Your task to perform on an android device: Show the shopping cart on bestbuy. Add logitech g pro to the cart on bestbuy Image 0: 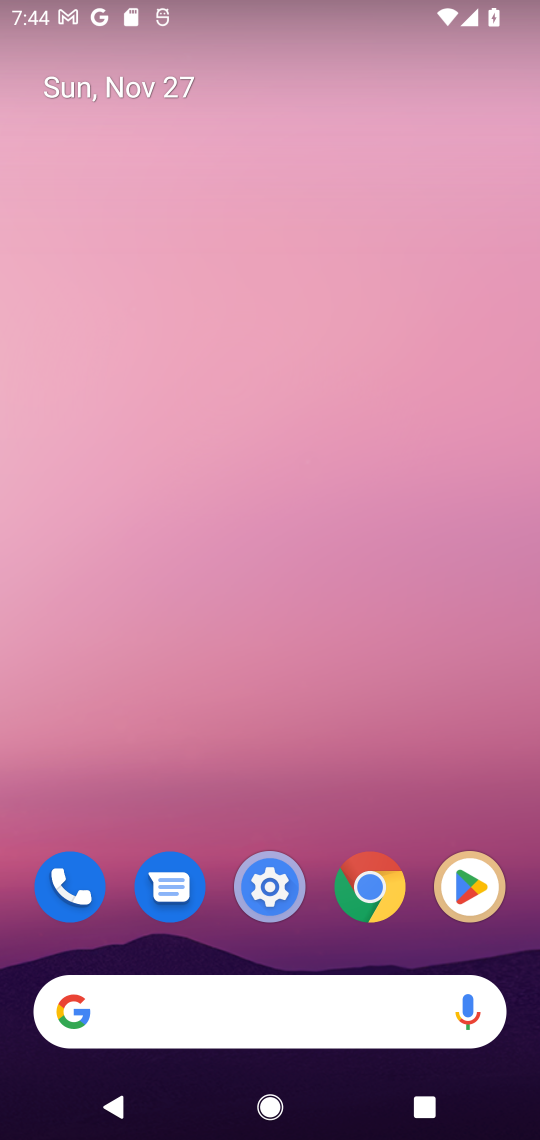
Step 0: press home button
Your task to perform on an android device: Show the shopping cart on bestbuy. Add logitech g pro to the cart on bestbuy Image 1: 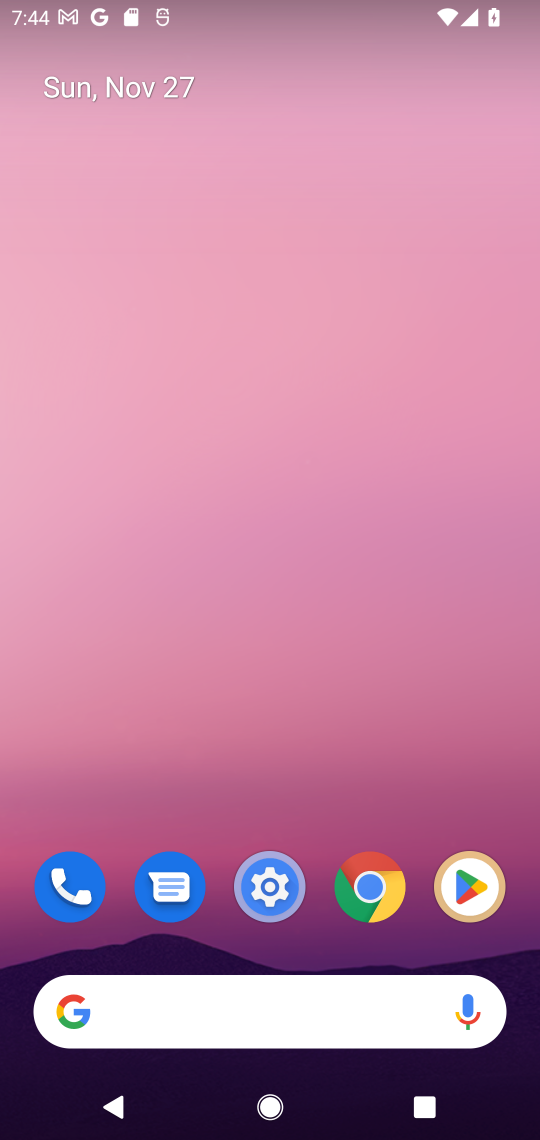
Step 1: click (334, 985)
Your task to perform on an android device: Show the shopping cart on bestbuy. Add logitech g pro to the cart on bestbuy Image 2: 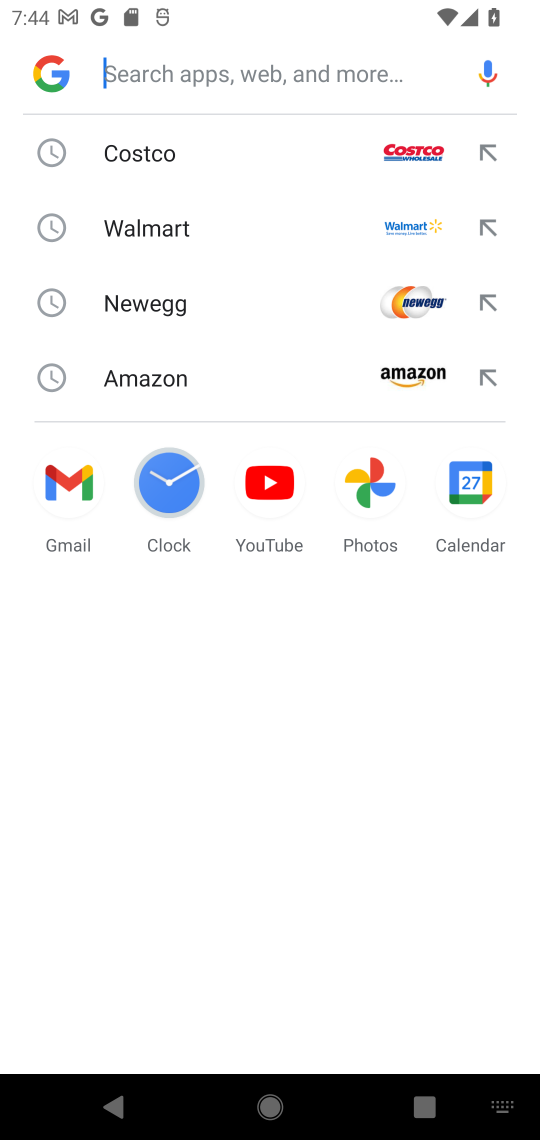
Step 2: type "bestbuy"
Your task to perform on an android device: Show the shopping cart on bestbuy. Add logitech g pro to the cart on bestbuy Image 3: 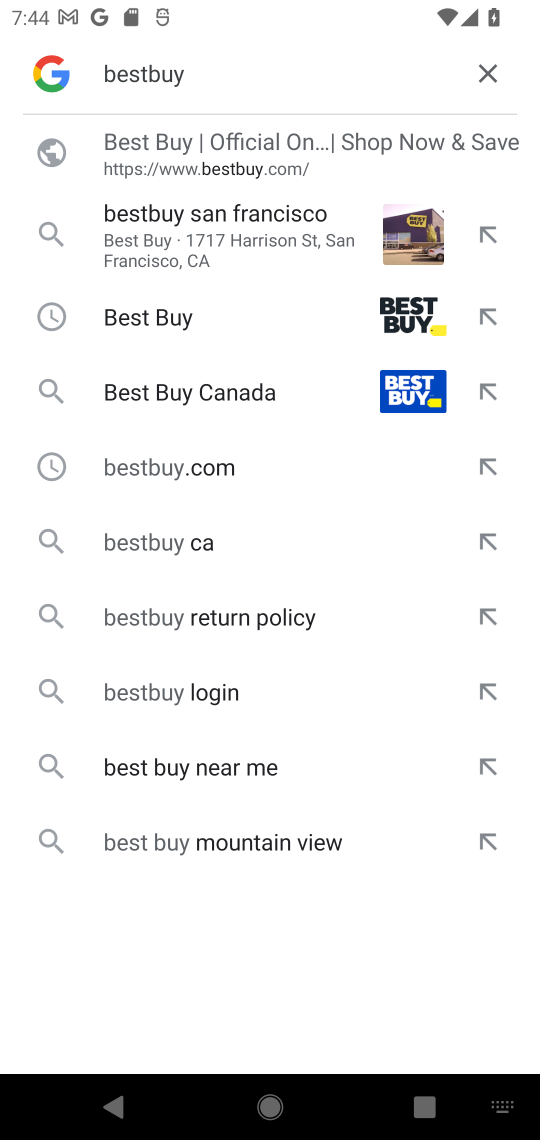
Step 3: click (201, 155)
Your task to perform on an android device: Show the shopping cart on bestbuy. Add logitech g pro to the cart on bestbuy Image 4: 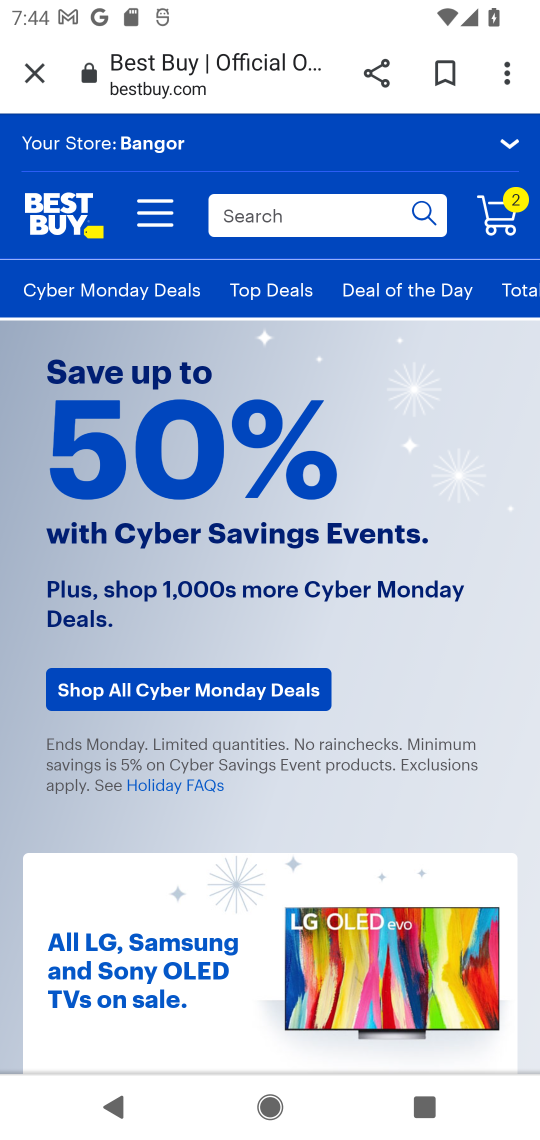
Step 4: click (279, 227)
Your task to perform on an android device: Show the shopping cart on bestbuy. Add logitech g pro to the cart on bestbuy Image 5: 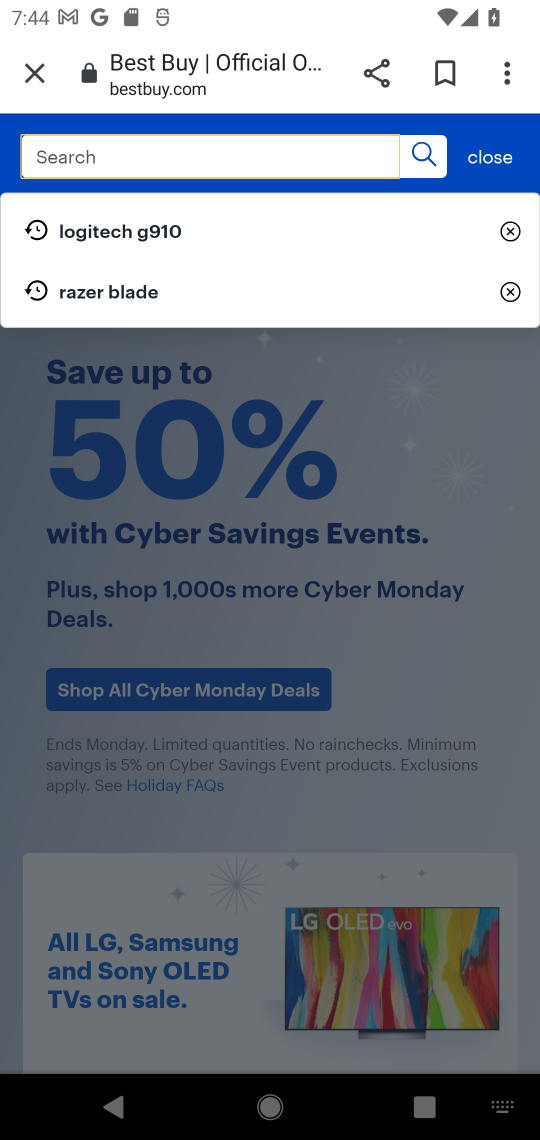
Step 5: type "logitech gpro"
Your task to perform on an android device: Show the shopping cart on bestbuy. Add logitech g pro to the cart on bestbuy Image 6: 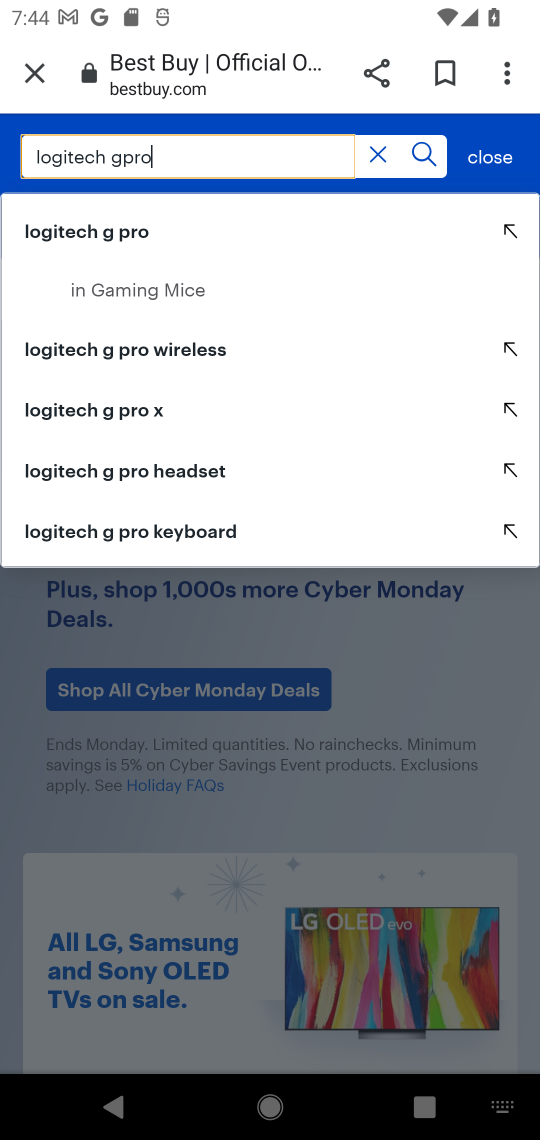
Step 6: click (257, 235)
Your task to perform on an android device: Show the shopping cart on bestbuy. Add logitech g pro to the cart on bestbuy Image 7: 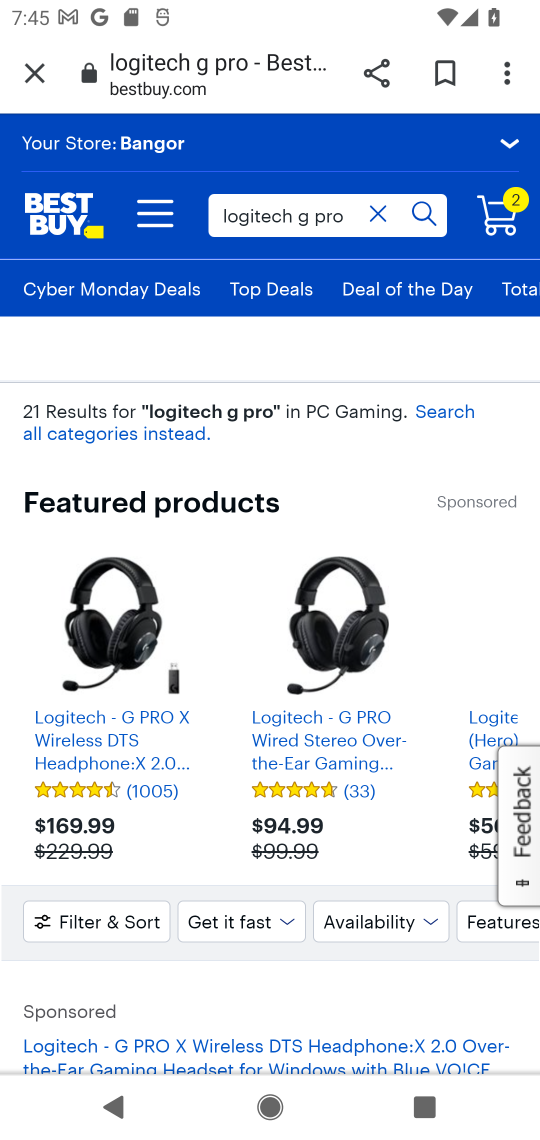
Step 7: click (150, 798)
Your task to perform on an android device: Show the shopping cart on bestbuy. Add logitech g pro to the cart on bestbuy Image 8: 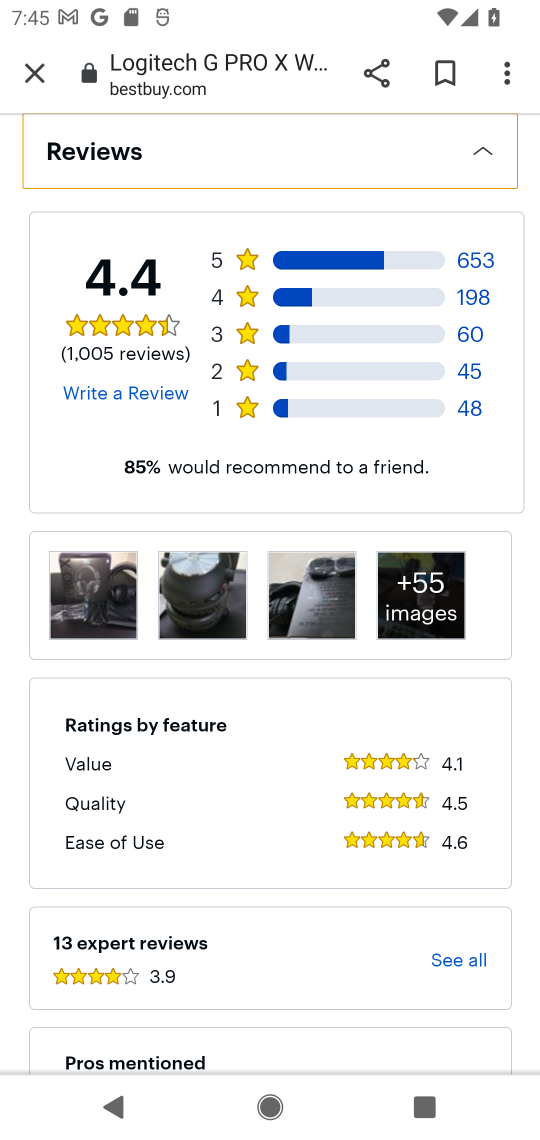
Step 8: drag from (407, 891) to (378, 399)
Your task to perform on an android device: Show the shopping cart on bestbuy. Add logitech g pro to the cart on bestbuy Image 9: 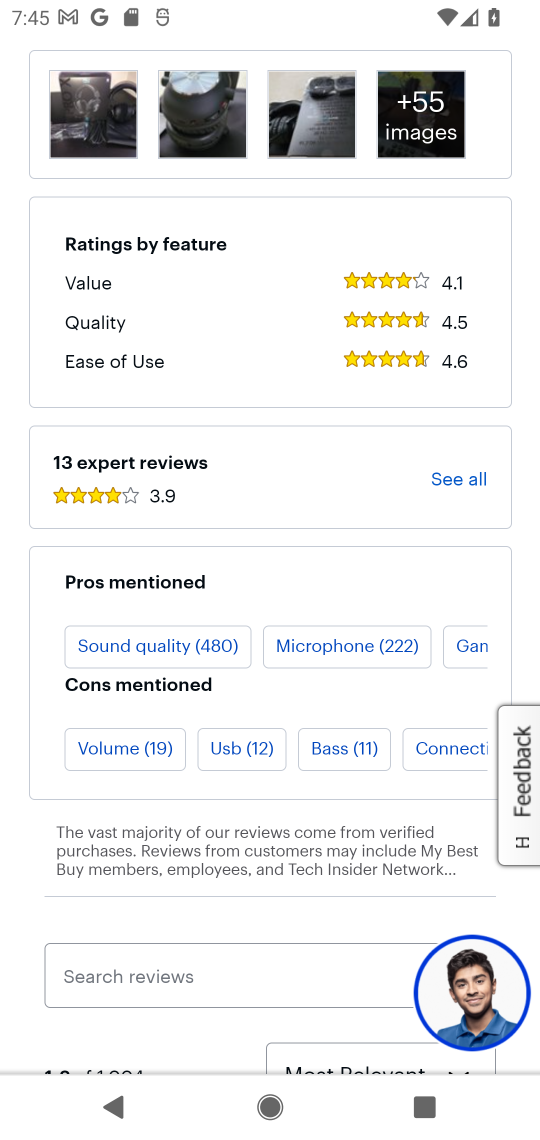
Step 9: drag from (350, 801) to (376, 437)
Your task to perform on an android device: Show the shopping cart on bestbuy. Add logitech g pro to the cart on bestbuy Image 10: 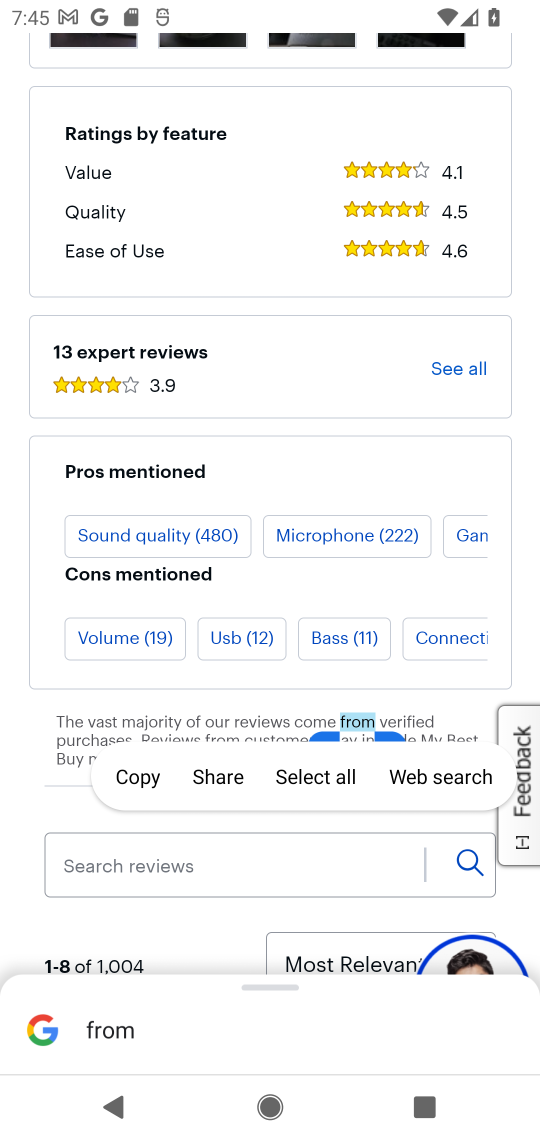
Step 10: click (335, 580)
Your task to perform on an android device: Show the shopping cart on bestbuy. Add logitech g pro to the cart on bestbuy Image 11: 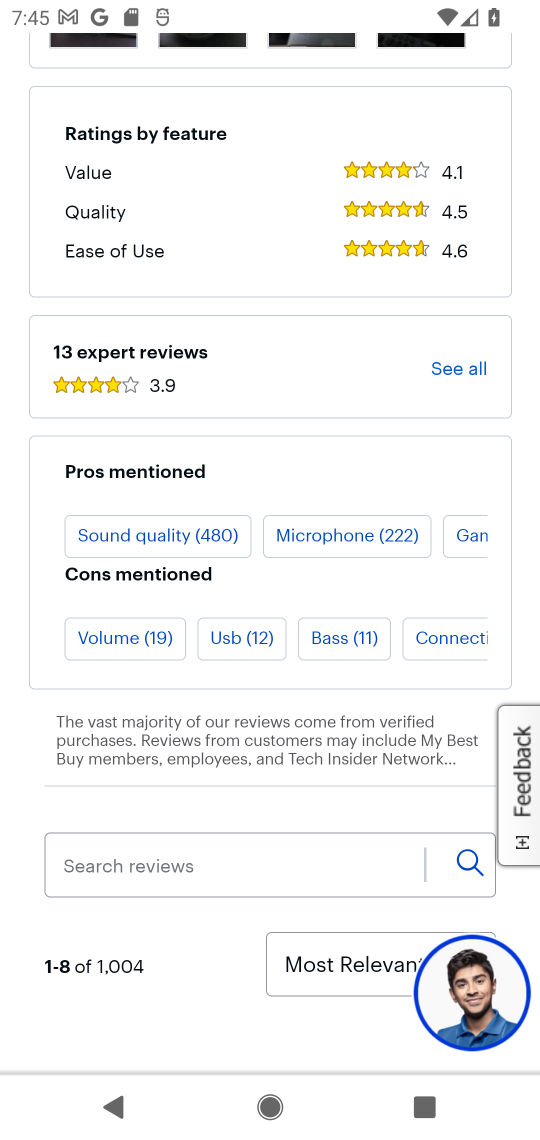
Step 11: press home button
Your task to perform on an android device: Show the shopping cart on bestbuy. Add logitech g pro to the cart on bestbuy Image 12: 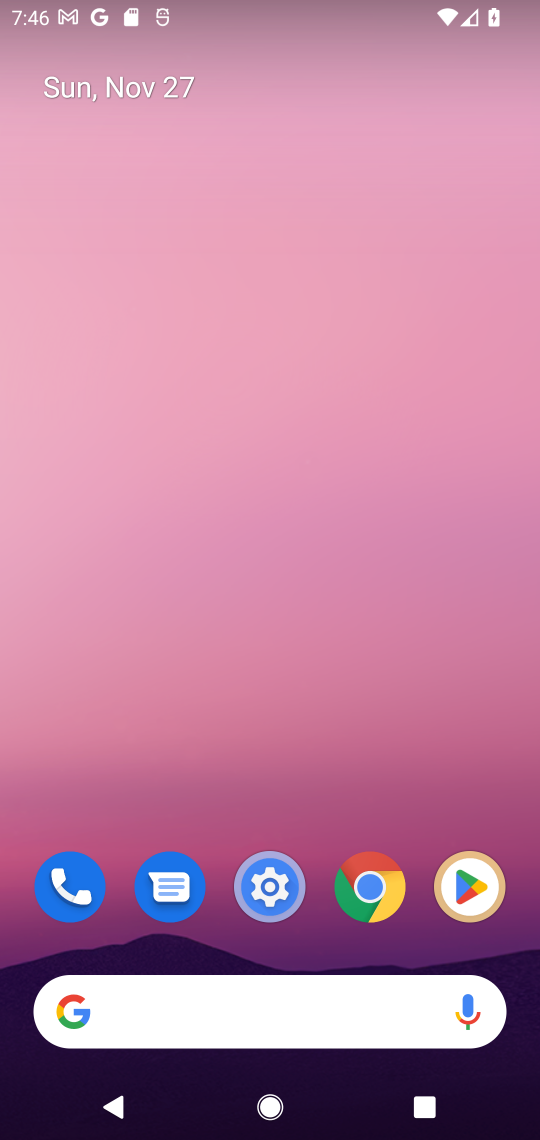
Step 12: click (317, 978)
Your task to perform on an android device: Show the shopping cart on bestbuy. Add logitech g pro to the cart on bestbuy Image 13: 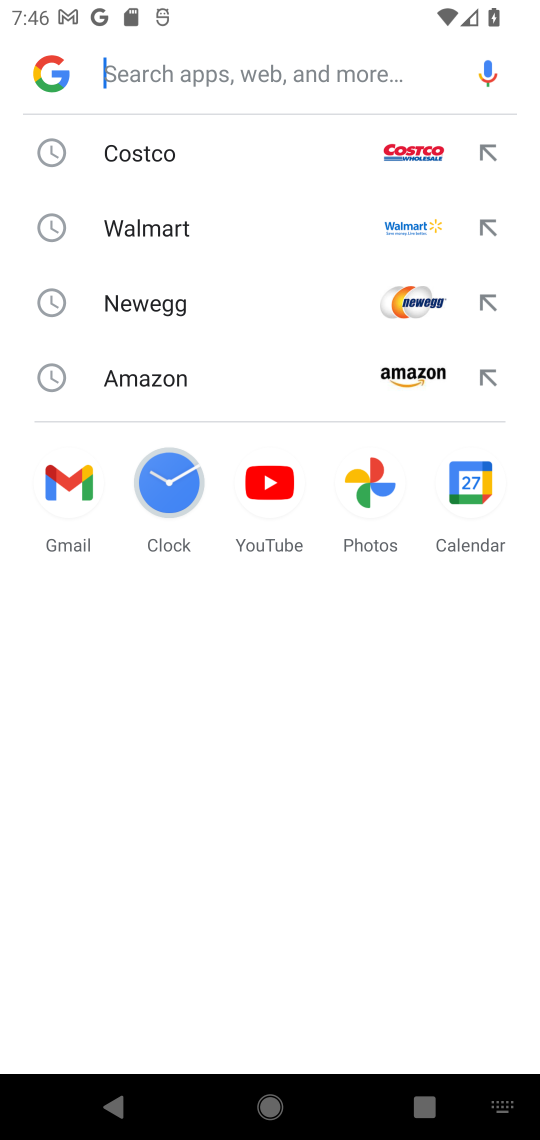
Step 13: type "bestbuiy"
Your task to perform on an android device: Show the shopping cart on bestbuy. Add logitech g pro to the cart on bestbuy Image 14: 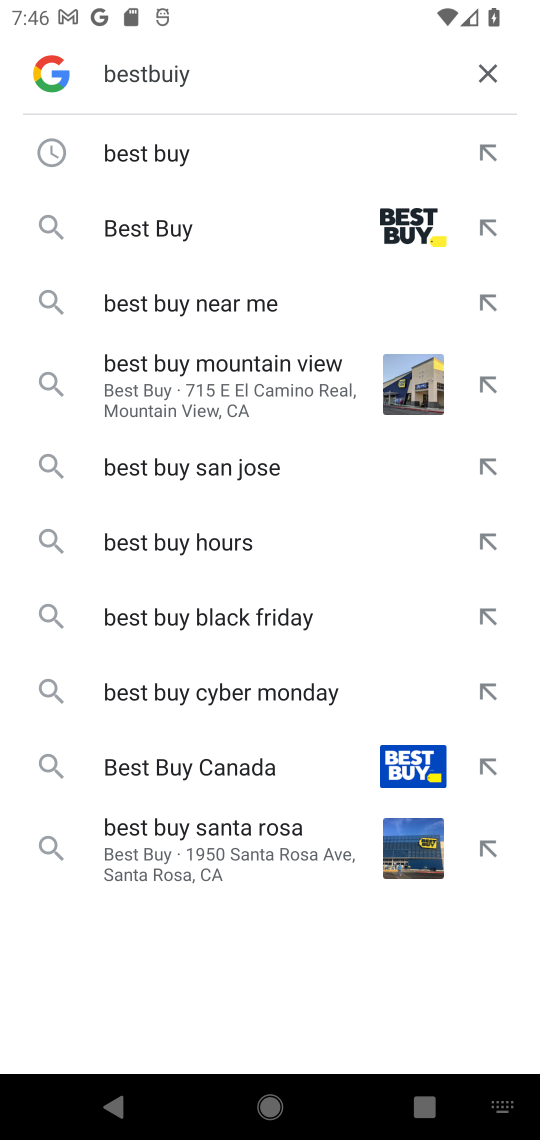
Step 14: click (203, 253)
Your task to perform on an android device: Show the shopping cart on bestbuy. Add logitech g pro to the cart on bestbuy Image 15: 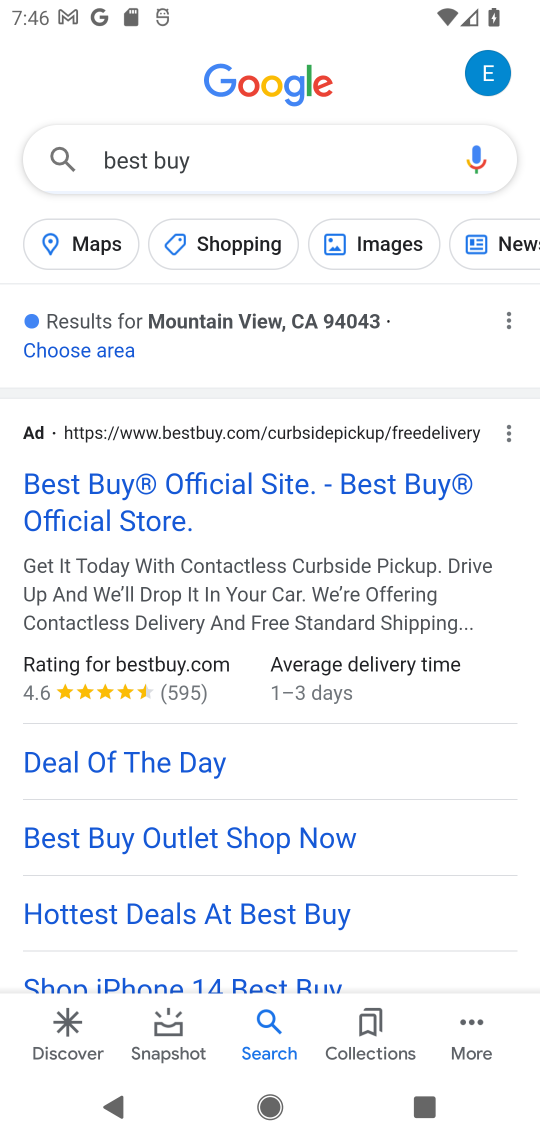
Step 15: click (287, 508)
Your task to perform on an android device: Show the shopping cart on bestbuy. Add logitech g pro to the cart on bestbuy Image 16: 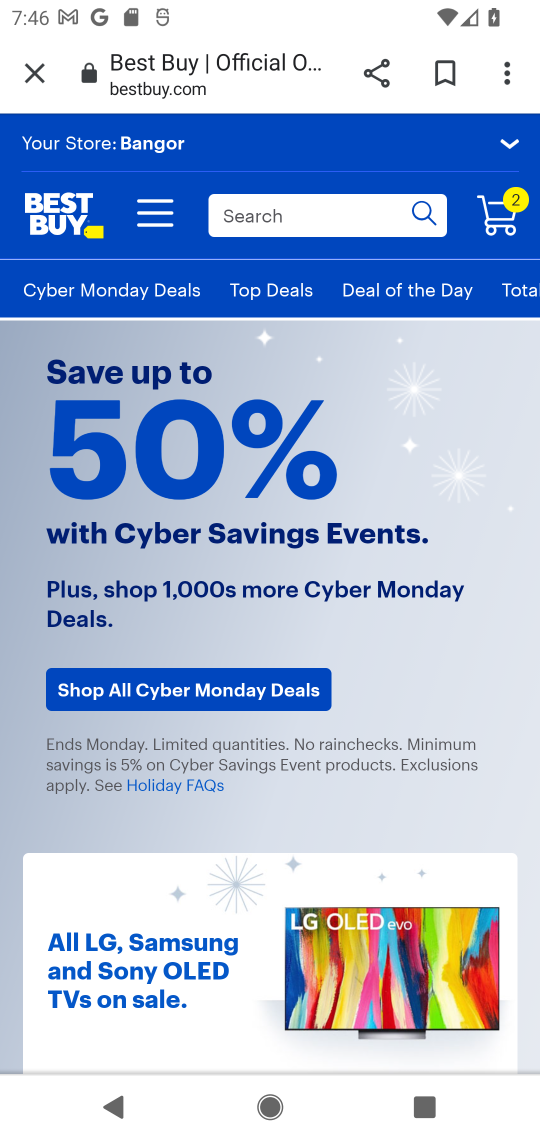
Step 16: click (255, 221)
Your task to perform on an android device: Show the shopping cart on bestbuy. Add logitech g pro to the cart on bestbuy Image 17: 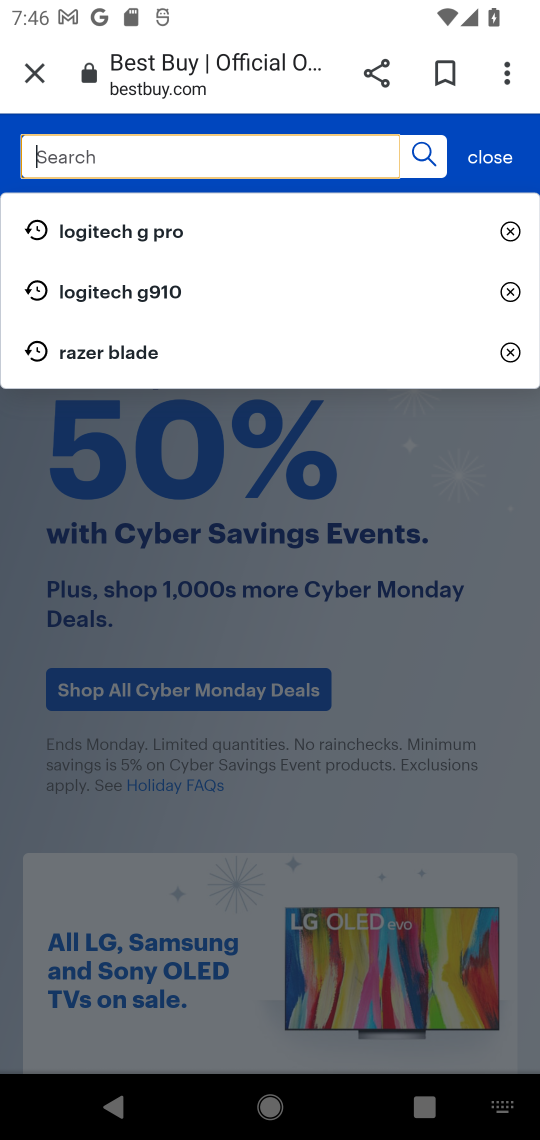
Step 17: click (69, 225)
Your task to perform on an android device: Show the shopping cart on bestbuy. Add logitech g pro to the cart on bestbuy Image 18: 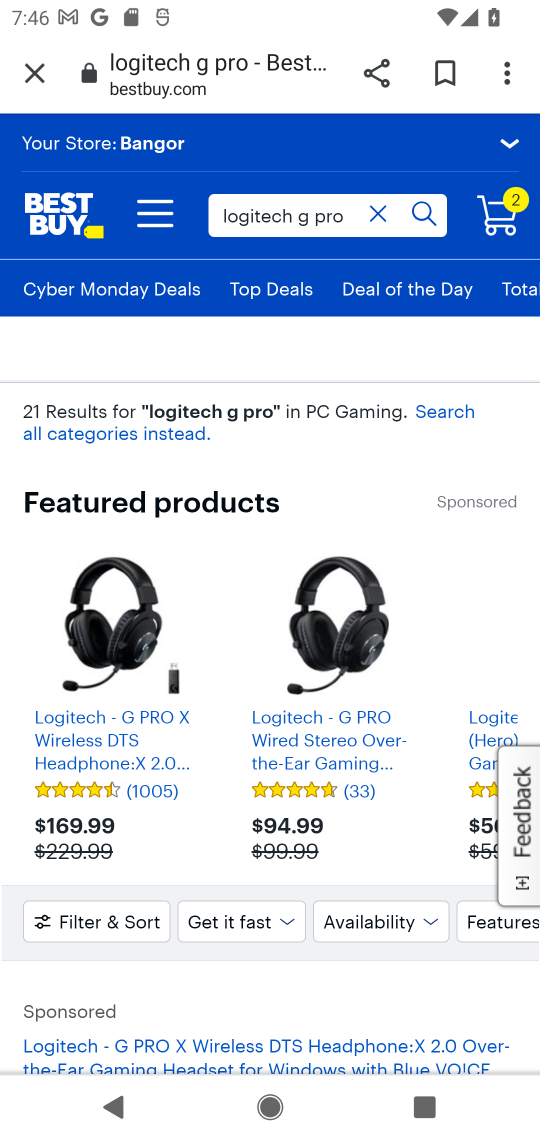
Step 18: click (121, 785)
Your task to perform on an android device: Show the shopping cart on bestbuy. Add logitech g pro to the cart on bestbuy Image 19: 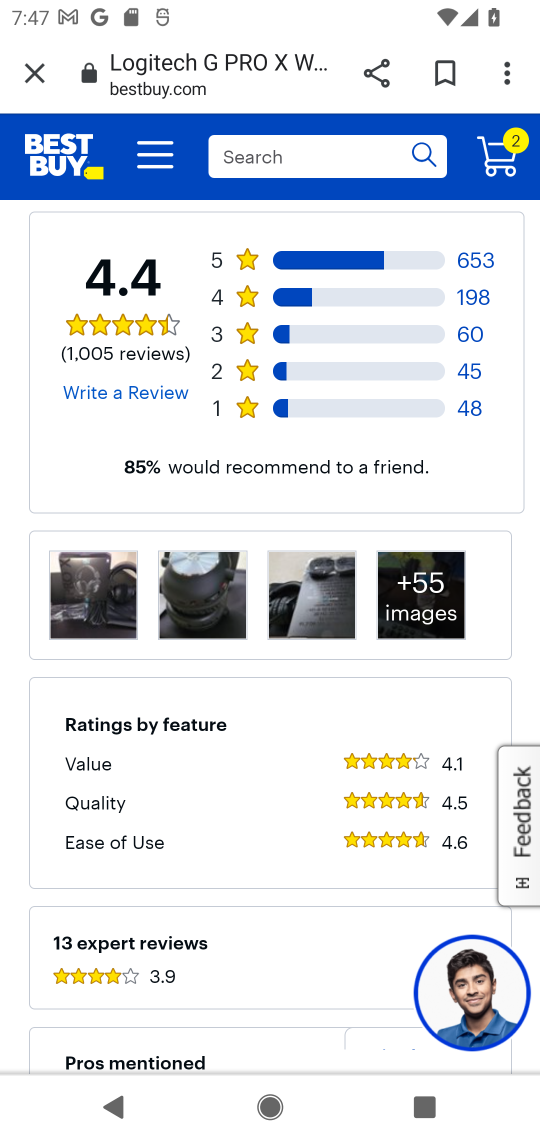
Step 19: drag from (342, 499) to (261, 996)
Your task to perform on an android device: Show the shopping cart on bestbuy. Add logitech g pro to the cart on bestbuy Image 20: 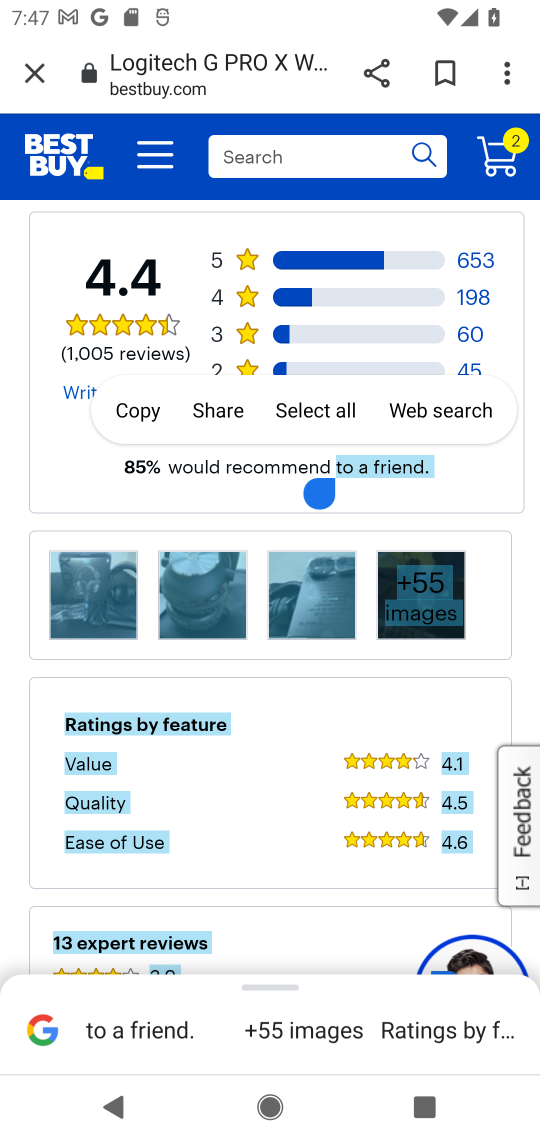
Step 20: click (511, 656)
Your task to perform on an android device: Show the shopping cart on bestbuy. Add logitech g pro to the cart on bestbuy Image 21: 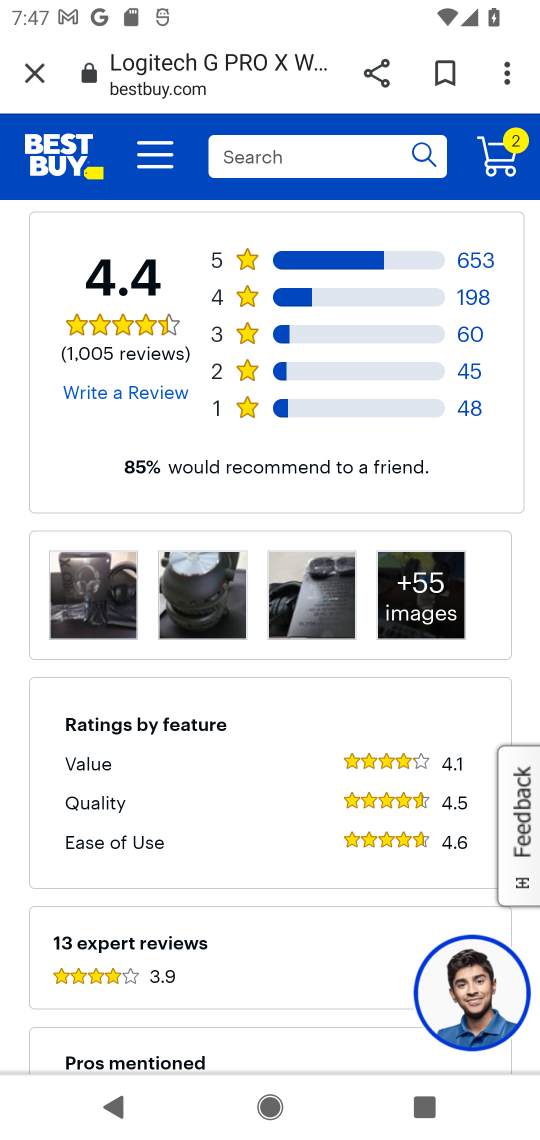
Step 21: task complete